Your task to perform on an android device: Open eBay Image 0: 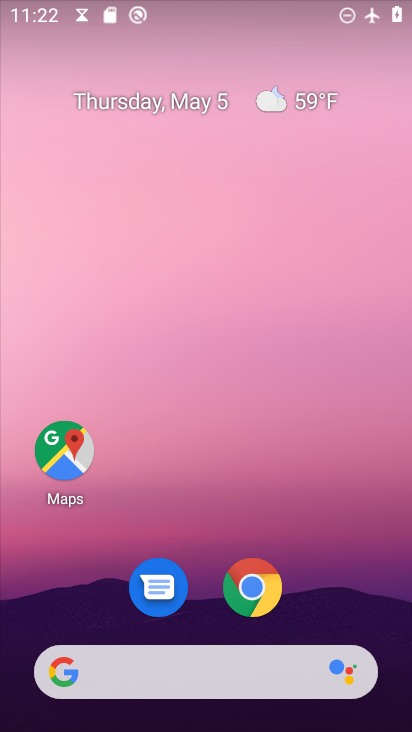
Step 0: drag from (364, 564) to (274, 11)
Your task to perform on an android device: Open eBay Image 1: 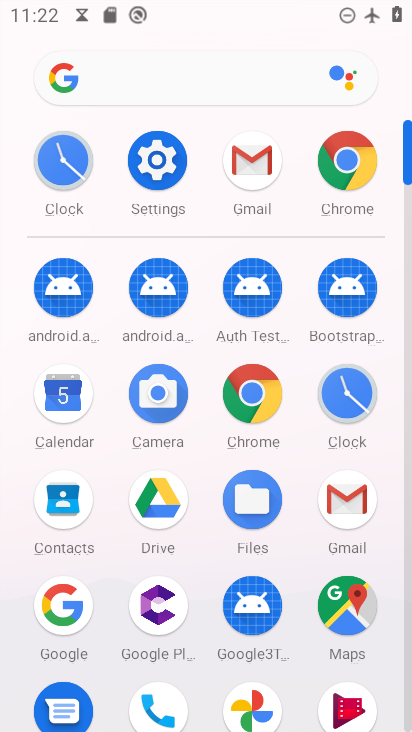
Step 1: drag from (13, 631) to (9, 256)
Your task to perform on an android device: Open eBay Image 2: 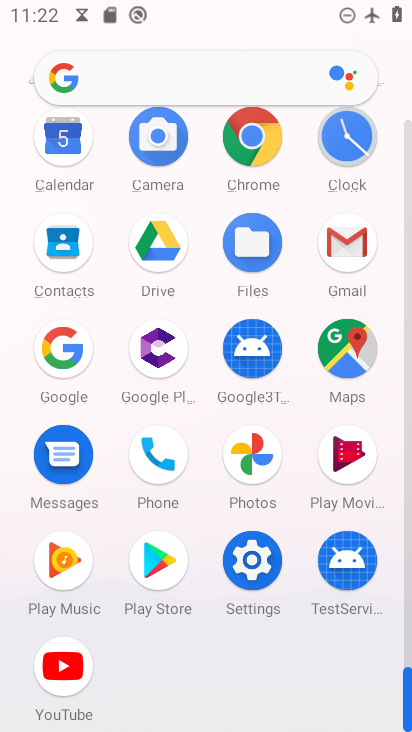
Step 2: click (247, 133)
Your task to perform on an android device: Open eBay Image 3: 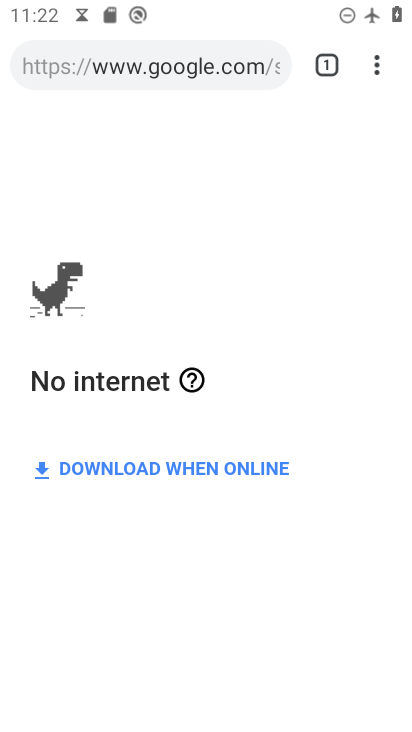
Step 3: click (83, 46)
Your task to perform on an android device: Open eBay Image 4: 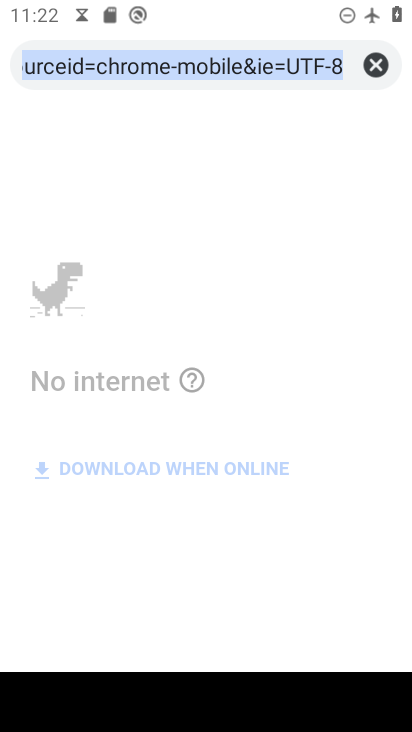
Step 4: click (368, 57)
Your task to perform on an android device: Open eBay Image 5: 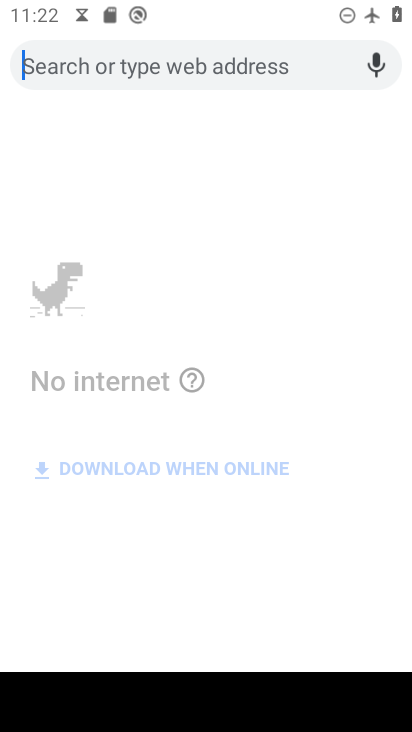
Step 5: type "eBay"
Your task to perform on an android device: Open eBay Image 6: 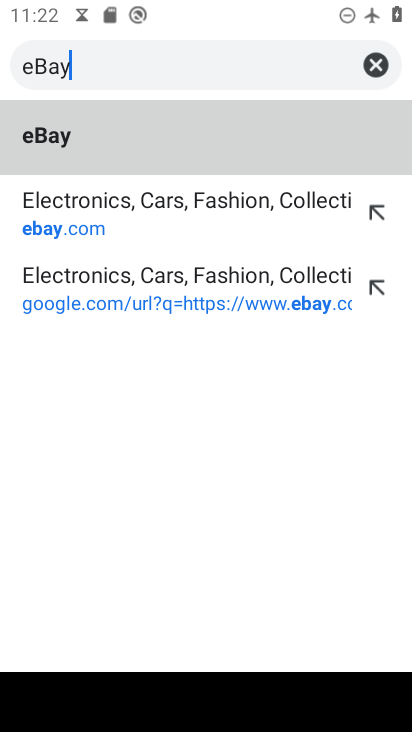
Step 6: type ""
Your task to perform on an android device: Open eBay Image 7: 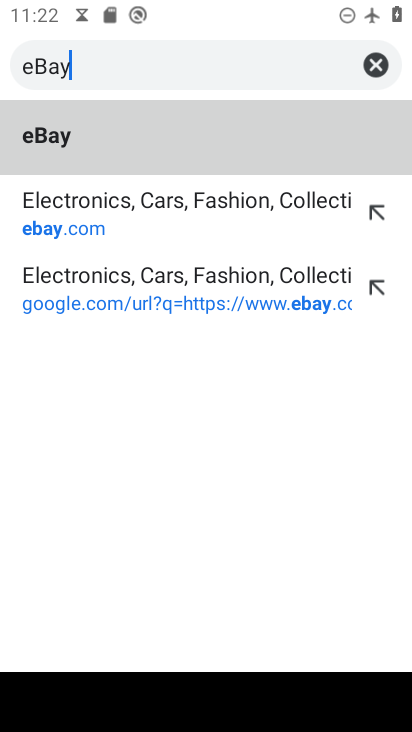
Step 7: click (111, 170)
Your task to perform on an android device: Open eBay Image 8: 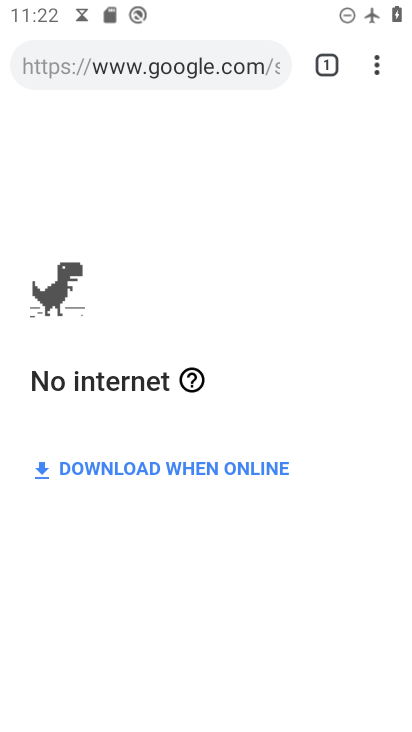
Step 8: task complete